Your task to perform on an android device: turn on data saver in the chrome app Image 0: 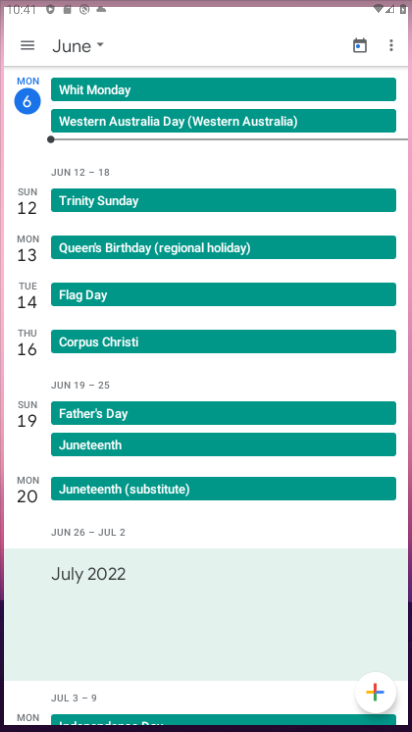
Step 0: press home button
Your task to perform on an android device: turn on data saver in the chrome app Image 1: 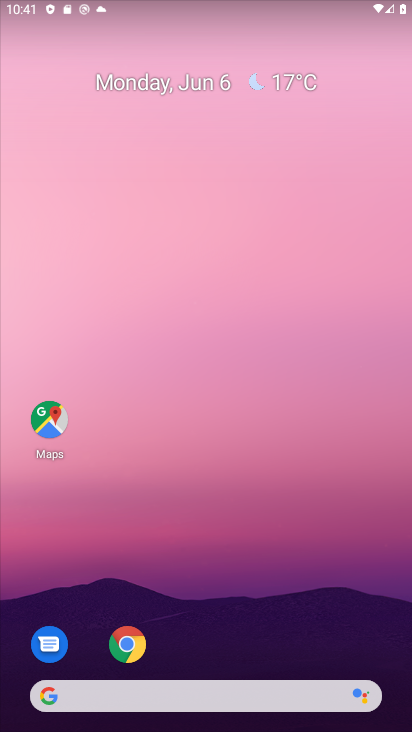
Step 1: click (119, 629)
Your task to perform on an android device: turn on data saver in the chrome app Image 2: 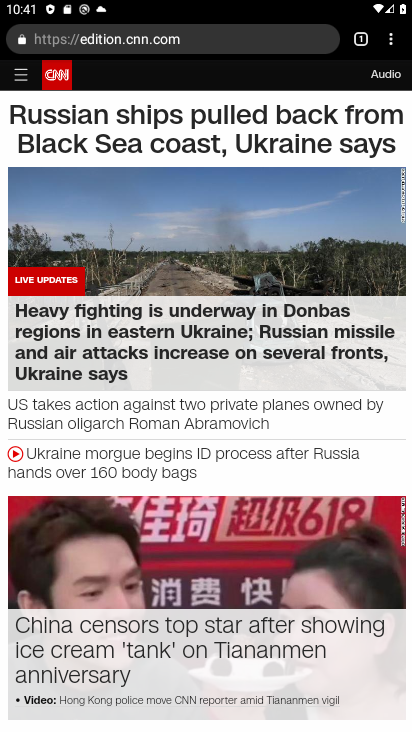
Step 2: drag from (384, 33) to (278, 438)
Your task to perform on an android device: turn on data saver in the chrome app Image 3: 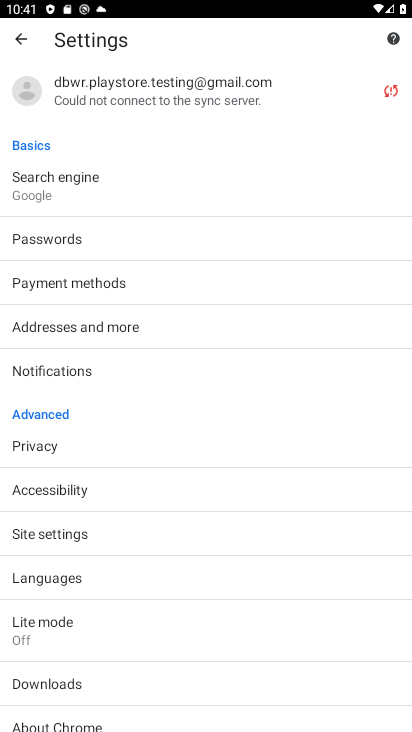
Step 3: click (82, 642)
Your task to perform on an android device: turn on data saver in the chrome app Image 4: 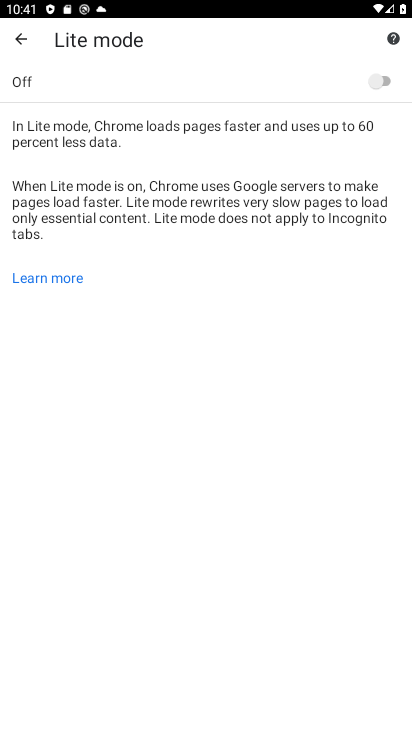
Step 4: click (355, 79)
Your task to perform on an android device: turn on data saver in the chrome app Image 5: 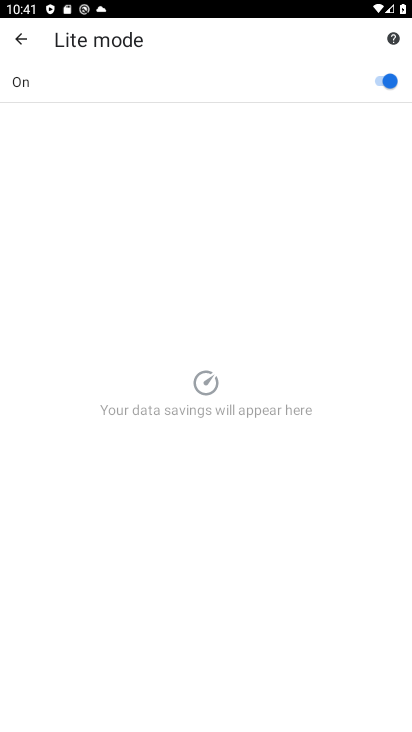
Step 5: task complete